Your task to perform on an android device: allow cookies in the chrome app Image 0: 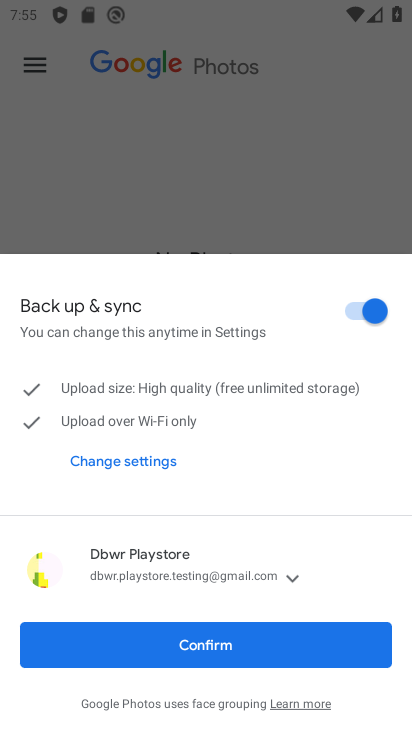
Step 0: click (202, 640)
Your task to perform on an android device: allow cookies in the chrome app Image 1: 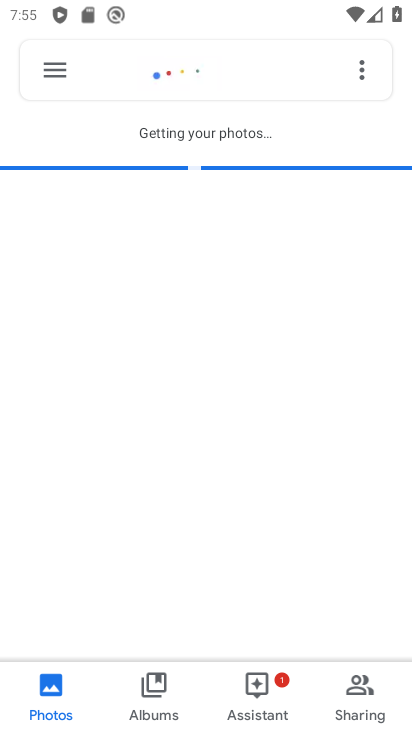
Step 1: press home button
Your task to perform on an android device: allow cookies in the chrome app Image 2: 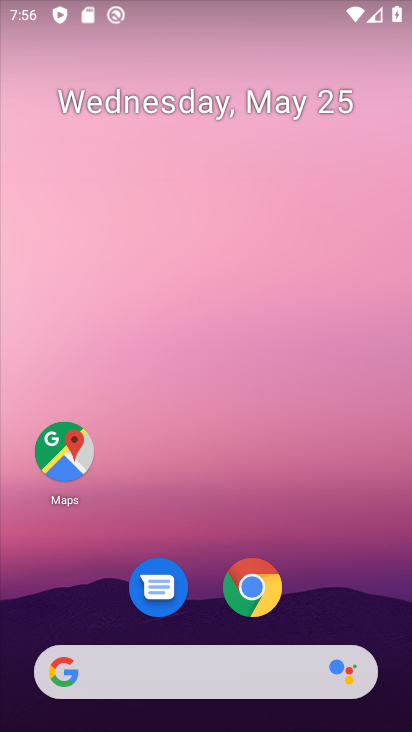
Step 2: click (250, 580)
Your task to perform on an android device: allow cookies in the chrome app Image 3: 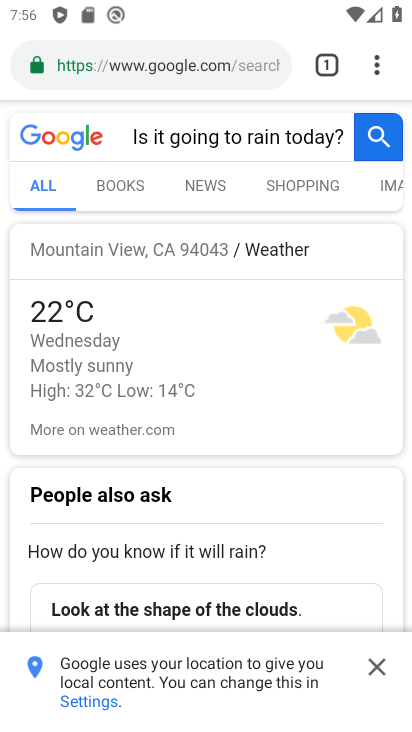
Step 3: drag from (379, 75) to (156, 623)
Your task to perform on an android device: allow cookies in the chrome app Image 4: 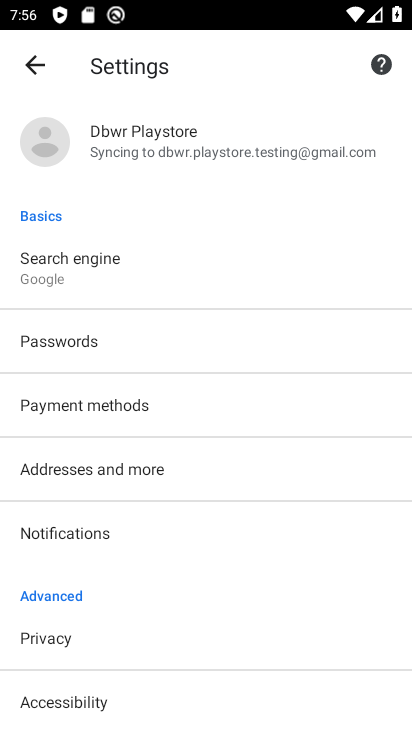
Step 4: drag from (191, 667) to (233, 436)
Your task to perform on an android device: allow cookies in the chrome app Image 5: 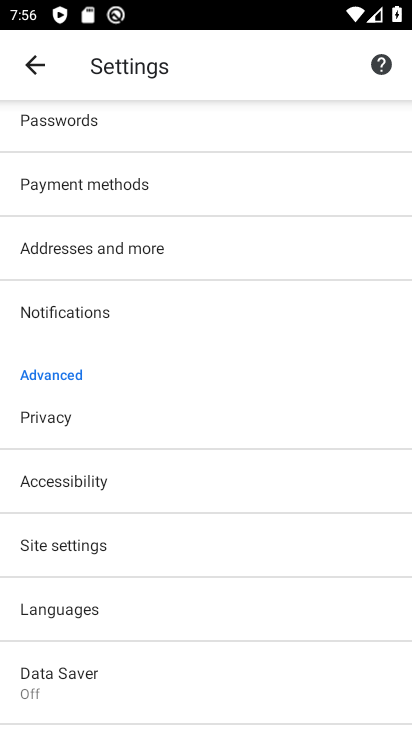
Step 5: click (64, 541)
Your task to perform on an android device: allow cookies in the chrome app Image 6: 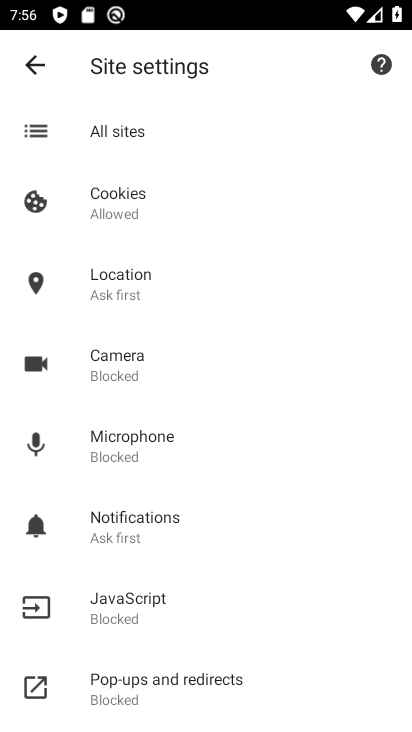
Step 6: click (122, 208)
Your task to perform on an android device: allow cookies in the chrome app Image 7: 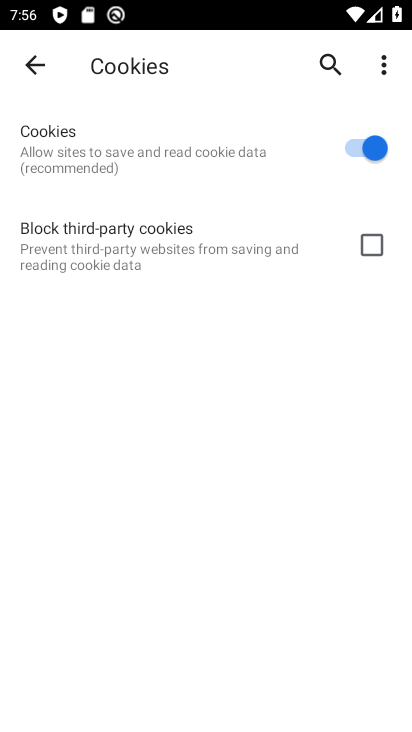
Step 7: task complete